Your task to perform on an android device: Check the news Image 0: 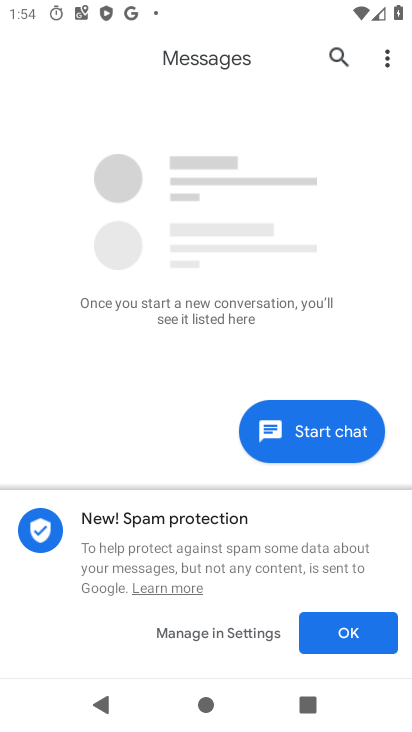
Step 0: press home button
Your task to perform on an android device: Check the news Image 1: 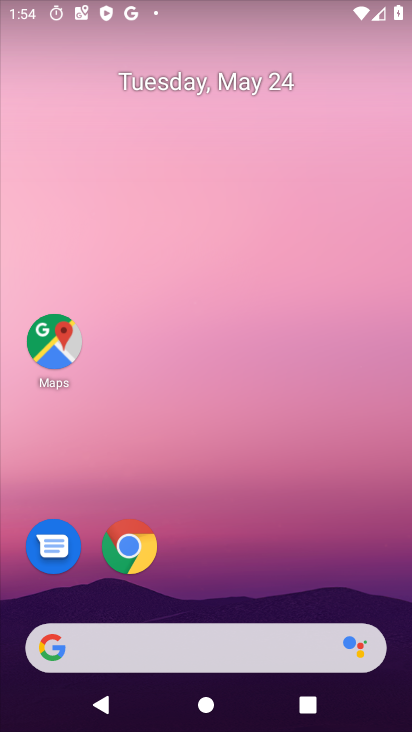
Step 1: task complete